Your task to perform on an android device: Go to internet settings Image 0: 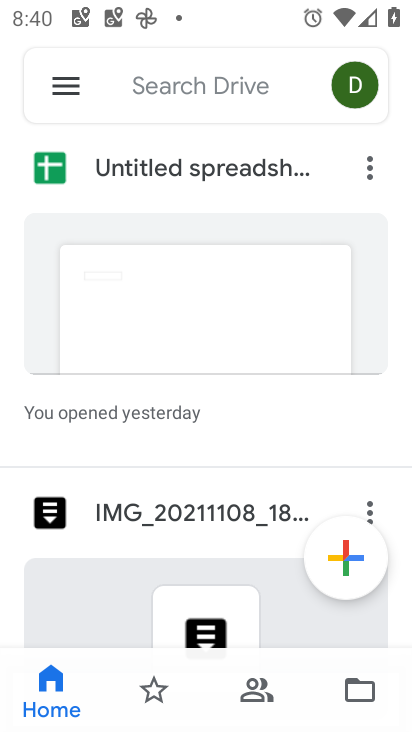
Step 0: press home button
Your task to perform on an android device: Go to internet settings Image 1: 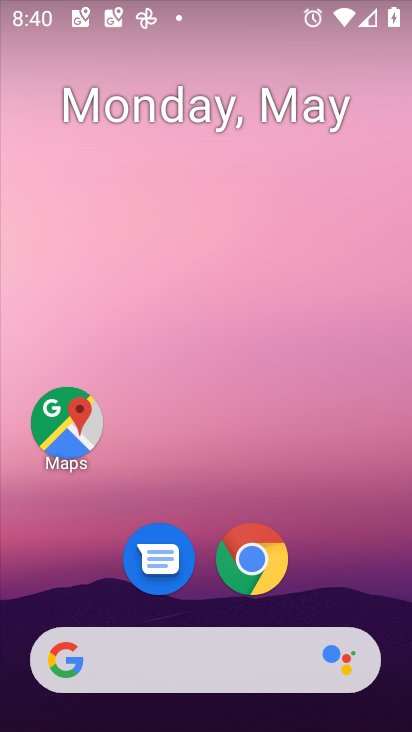
Step 1: drag from (395, 636) to (311, 70)
Your task to perform on an android device: Go to internet settings Image 2: 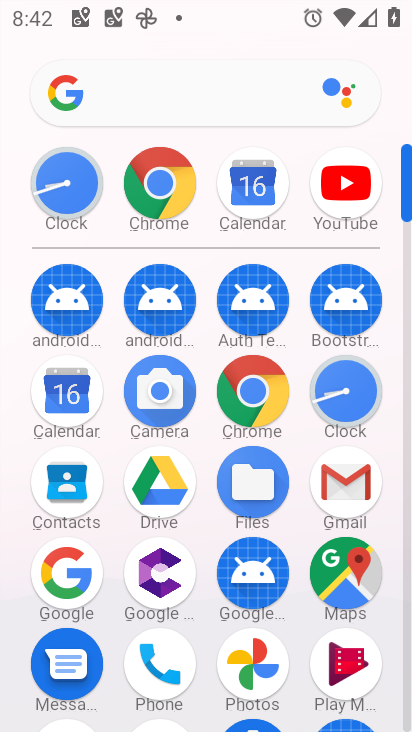
Step 2: drag from (285, 698) to (287, 120)
Your task to perform on an android device: Go to internet settings Image 3: 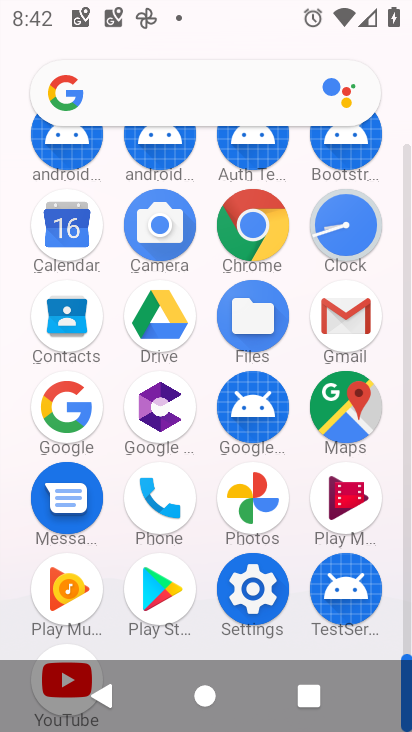
Step 3: click (251, 599)
Your task to perform on an android device: Go to internet settings Image 4: 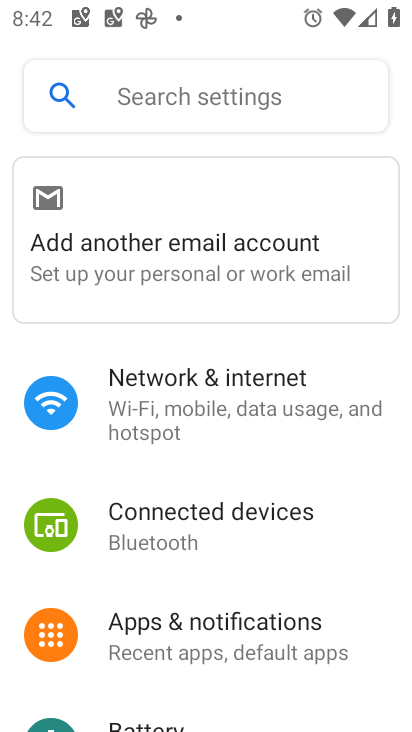
Step 4: click (227, 392)
Your task to perform on an android device: Go to internet settings Image 5: 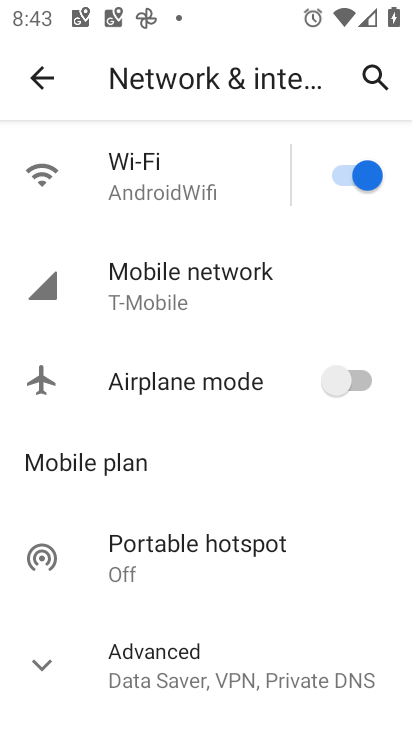
Step 5: task complete